Your task to perform on an android device: turn on the 12-hour format for clock Image 0: 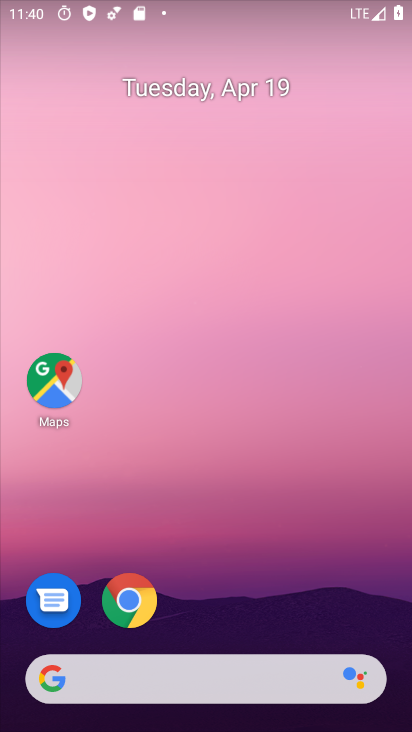
Step 0: drag from (381, 471) to (364, 48)
Your task to perform on an android device: turn on the 12-hour format for clock Image 1: 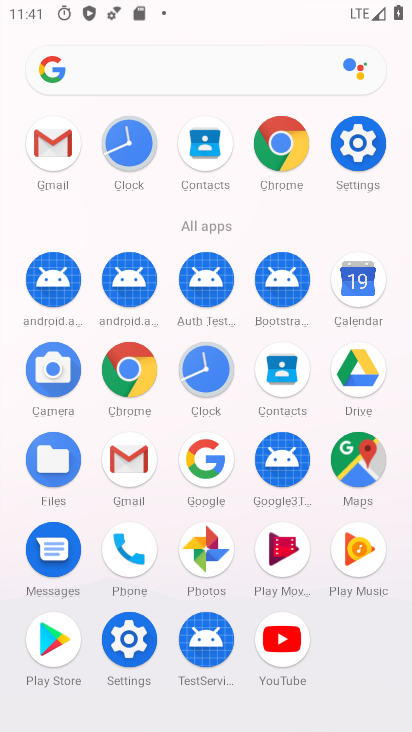
Step 1: click (203, 369)
Your task to perform on an android device: turn on the 12-hour format for clock Image 2: 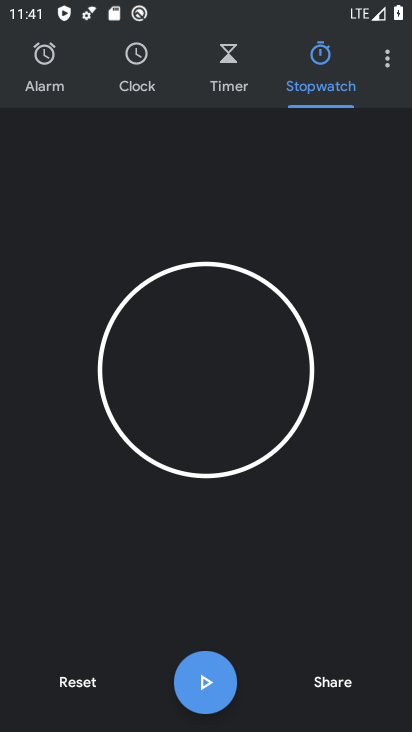
Step 2: click (386, 59)
Your task to perform on an android device: turn on the 12-hour format for clock Image 3: 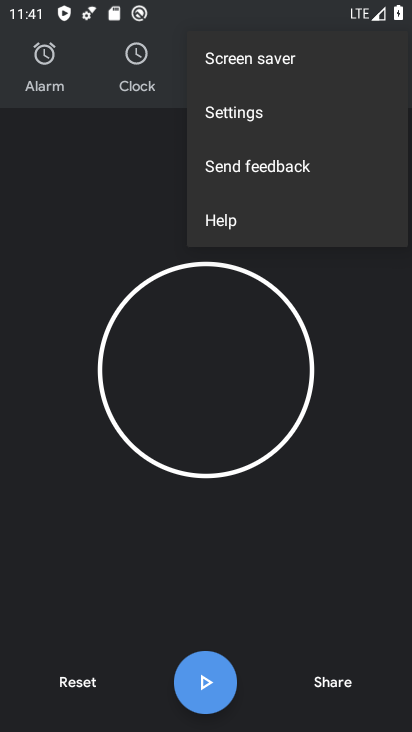
Step 3: click (245, 116)
Your task to perform on an android device: turn on the 12-hour format for clock Image 4: 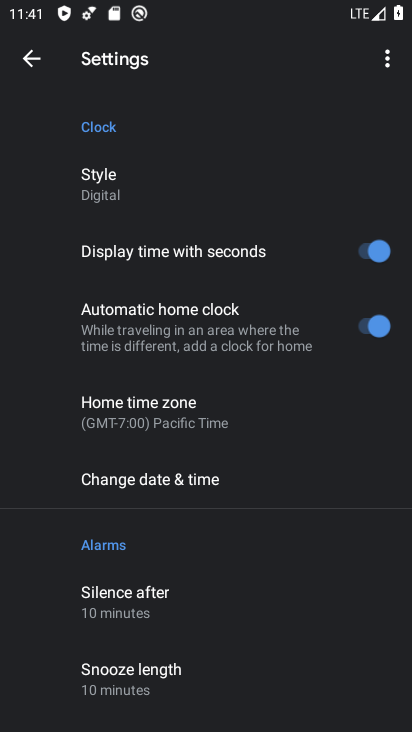
Step 4: click (138, 479)
Your task to perform on an android device: turn on the 12-hour format for clock Image 5: 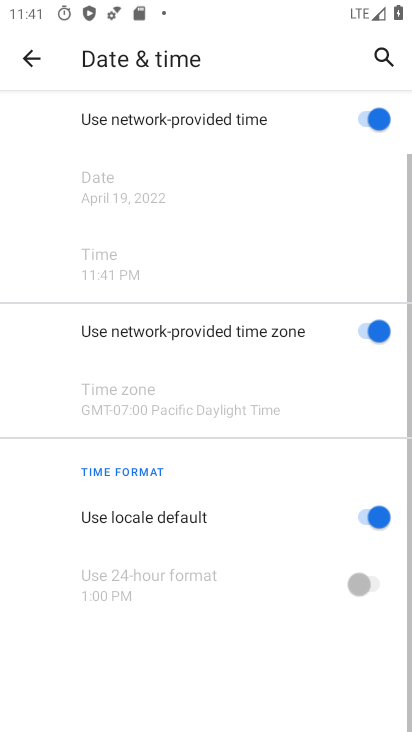
Step 5: task complete